Your task to perform on an android device: toggle airplane mode Image 0: 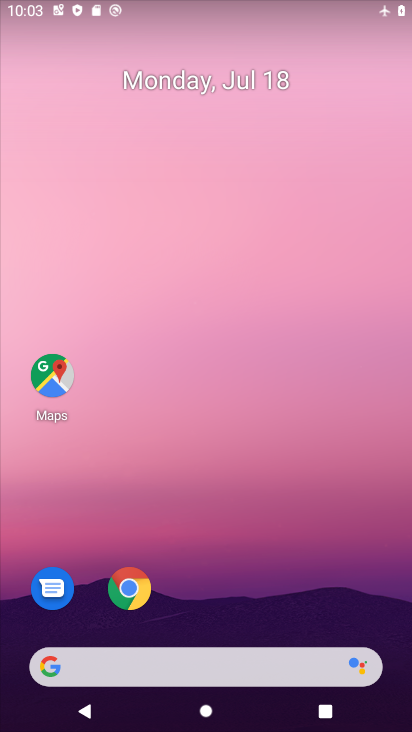
Step 0: drag from (240, 677) to (258, 118)
Your task to perform on an android device: toggle airplane mode Image 1: 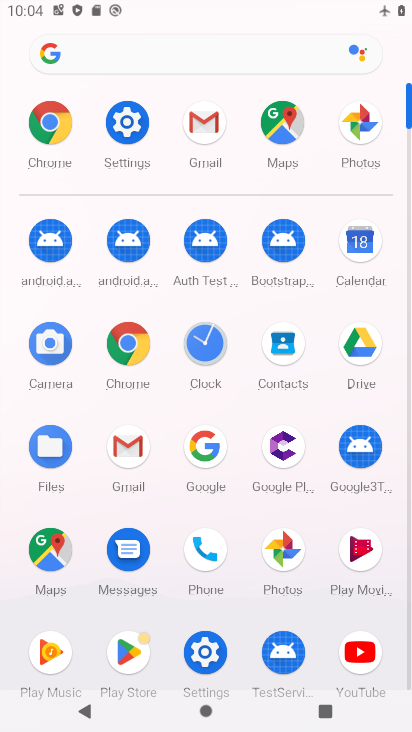
Step 1: click (117, 114)
Your task to perform on an android device: toggle airplane mode Image 2: 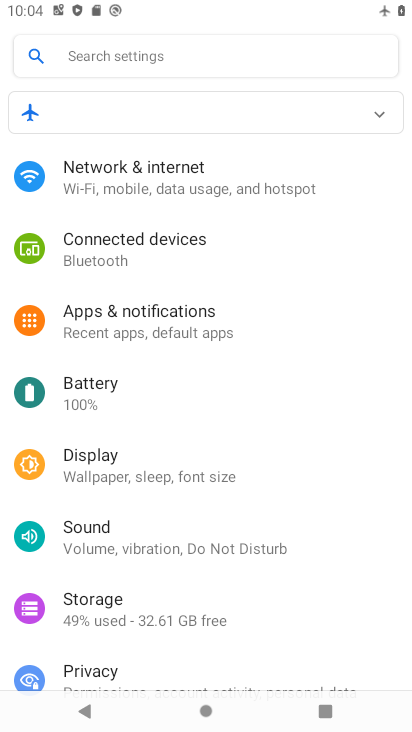
Step 2: click (134, 187)
Your task to perform on an android device: toggle airplane mode Image 3: 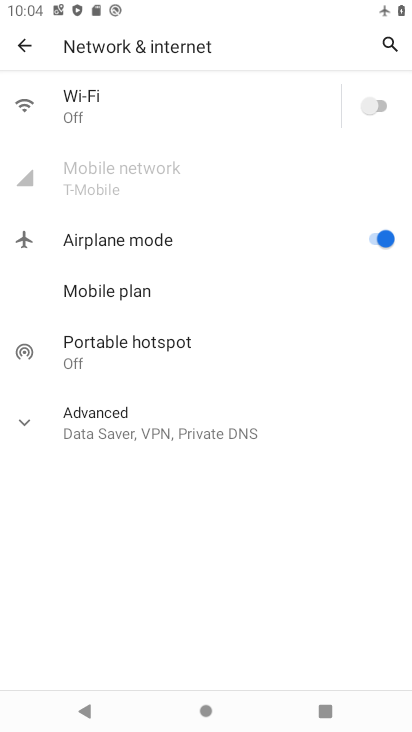
Step 3: click (386, 236)
Your task to perform on an android device: toggle airplane mode Image 4: 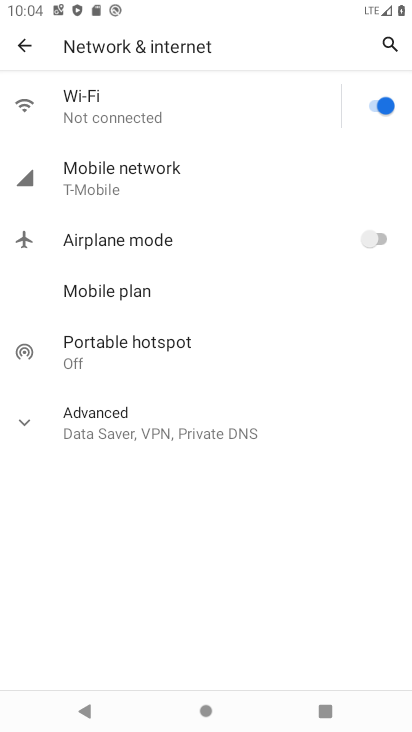
Step 4: task complete